Your task to perform on an android device: Go to notification settings Image 0: 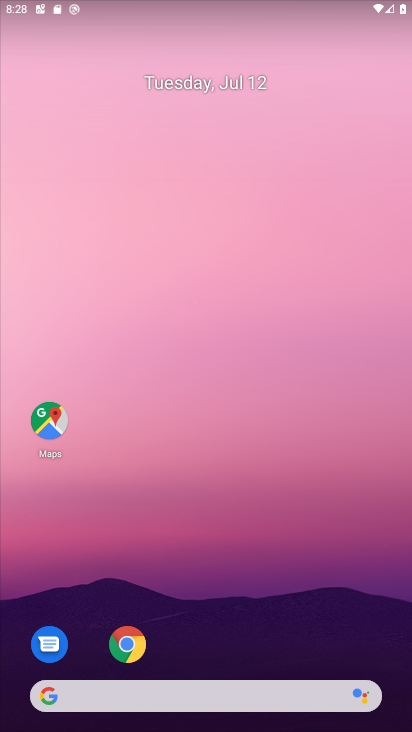
Step 0: drag from (233, 517) to (192, 76)
Your task to perform on an android device: Go to notification settings Image 1: 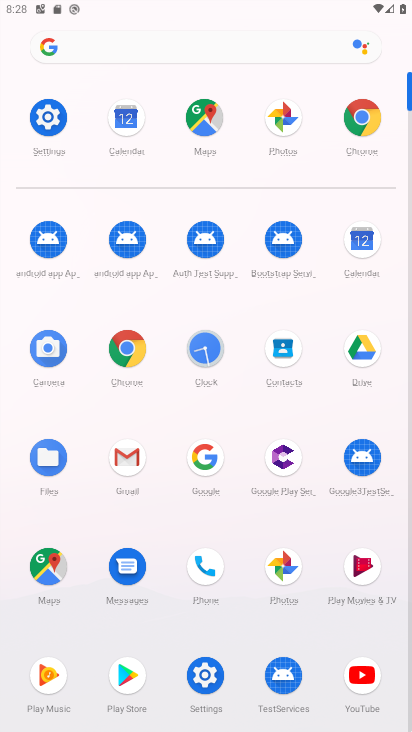
Step 1: click (47, 117)
Your task to perform on an android device: Go to notification settings Image 2: 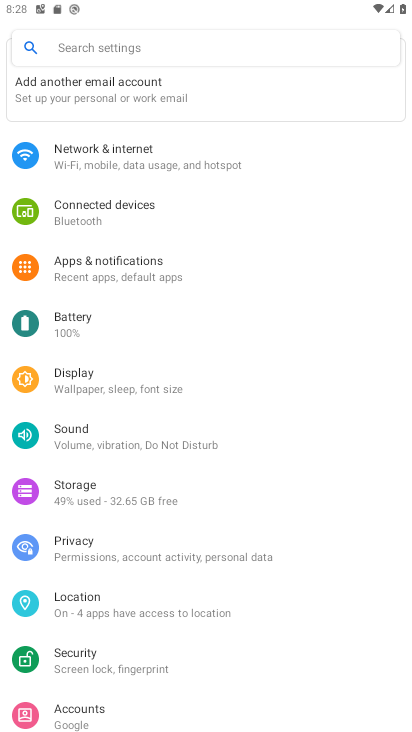
Step 2: click (175, 264)
Your task to perform on an android device: Go to notification settings Image 3: 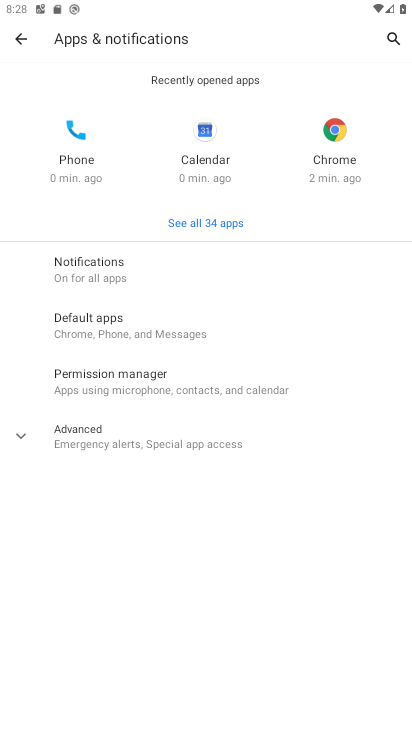
Step 3: task complete